Your task to perform on an android device: Open accessibility settings Image 0: 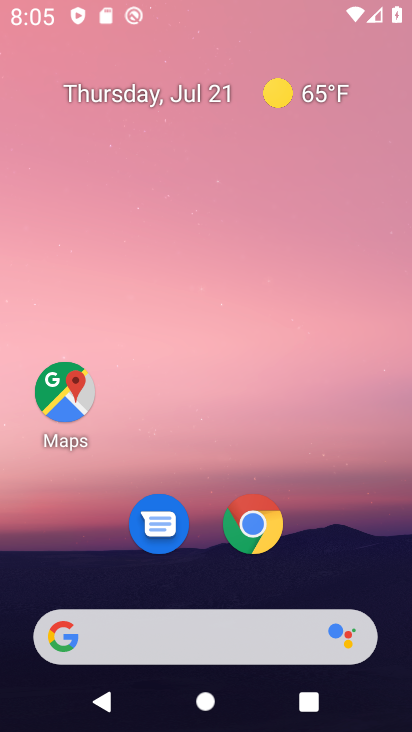
Step 0: click (179, 76)
Your task to perform on an android device: Open accessibility settings Image 1: 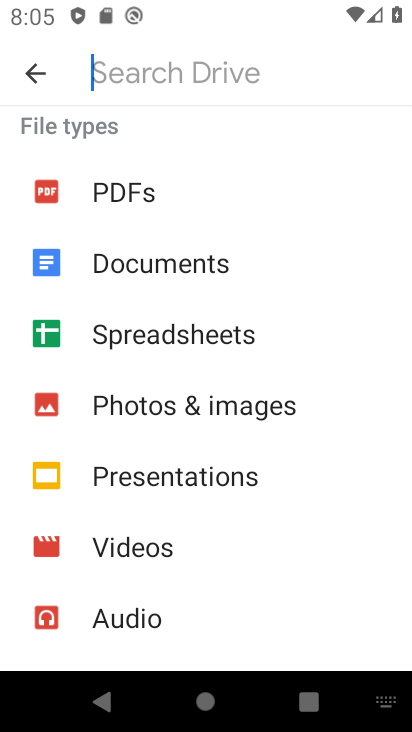
Step 1: press home button
Your task to perform on an android device: Open accessibility settings Image 2: 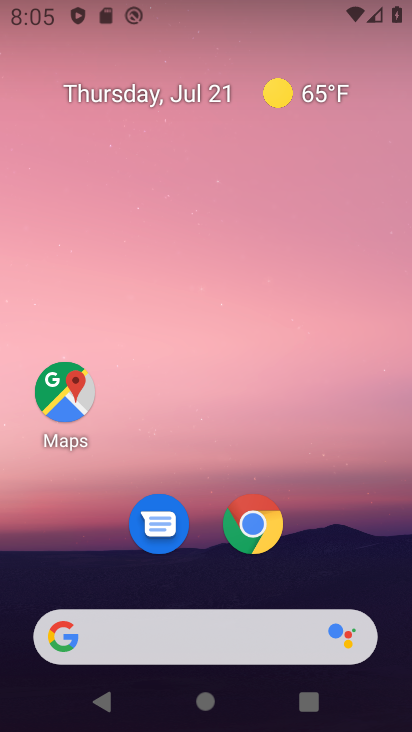
Step 2: drag from (160, 613) to (113, 41)
Your task to perform on an android device: Open accessibility settings Image 3: 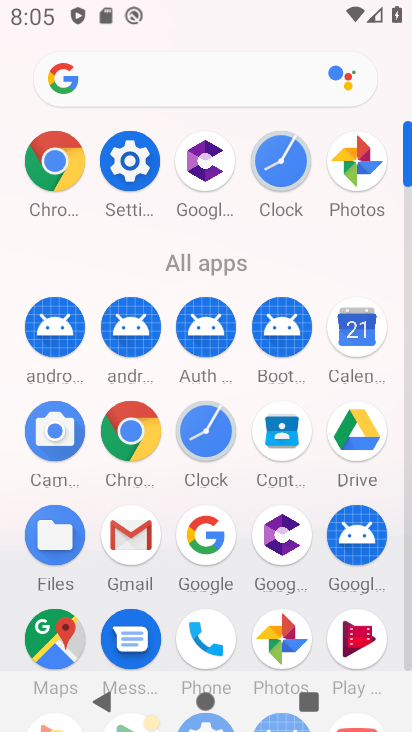
Step 3: click (138, 155)
Your task to perform on an android device: Open accessibility settings Image 4: 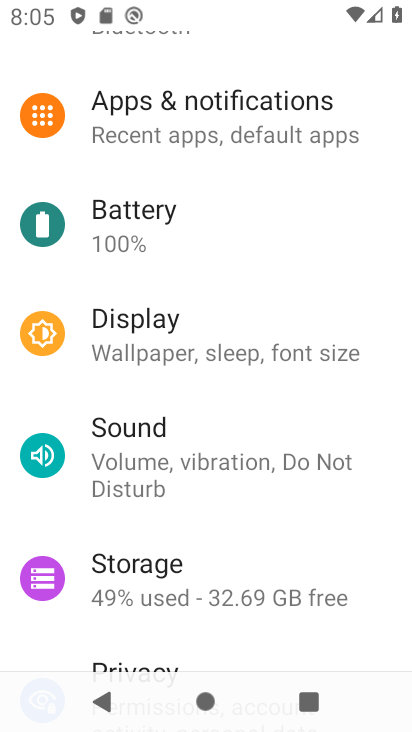
Step 4: drag from (200, 537) to (96, 11)
Your task to perform on an android device: Open accessibility settings Image 5: 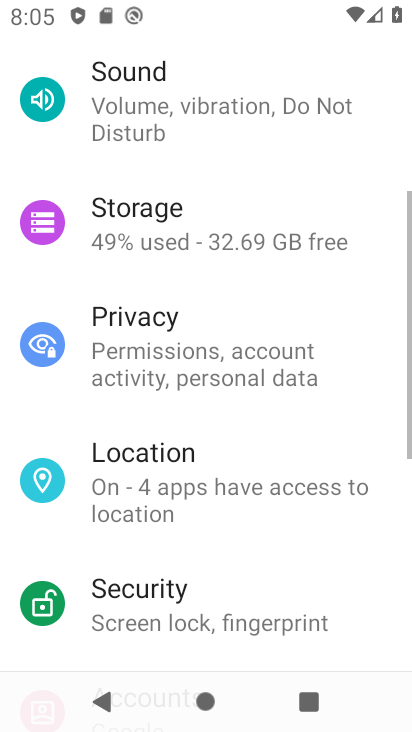
Step 5: drag from (134, 548) to (91, 33)
Your task to perform on an android device: Open accessibility settings Image 6: 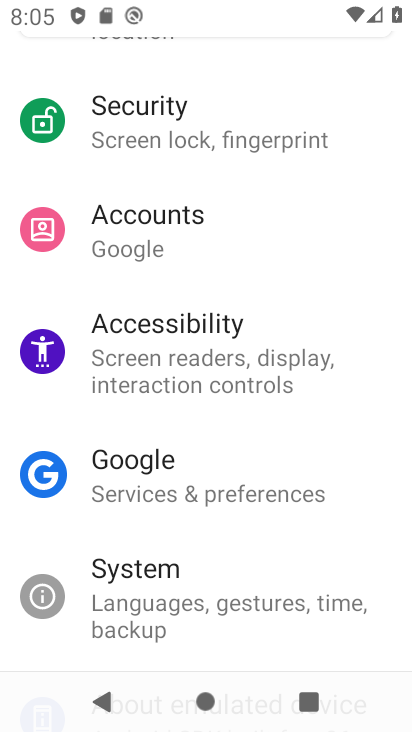
Step 6: click (172, 332)
Your task to perform on an android device: Open accessibility settings Image 7: 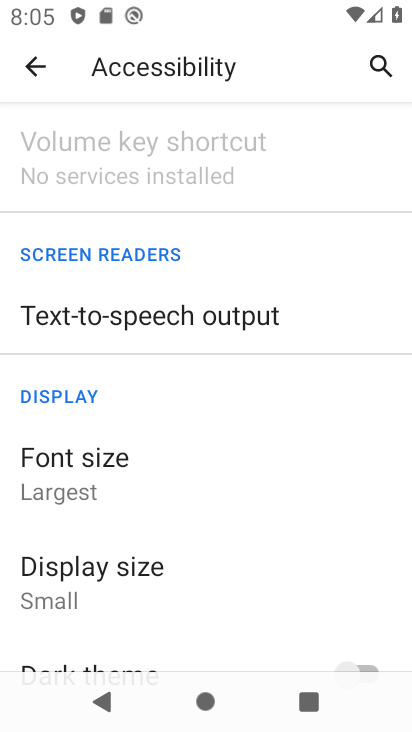
Step 7: task complete